Your task to perform on an android device: Go to Amazon Image 0: 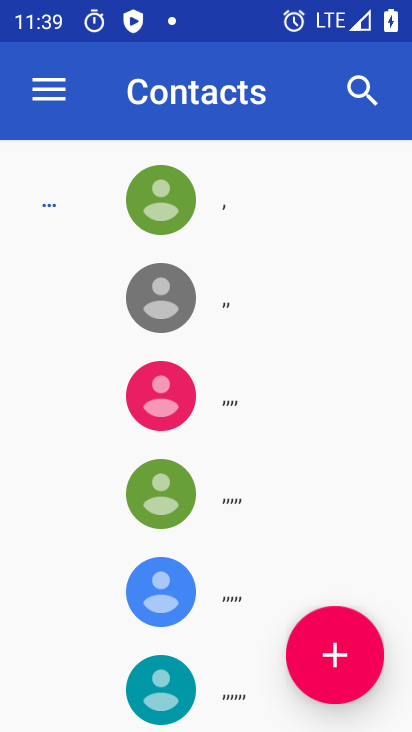
Step 0: press home button
Your task to perform on an android device: Go to Amazon Image 1: 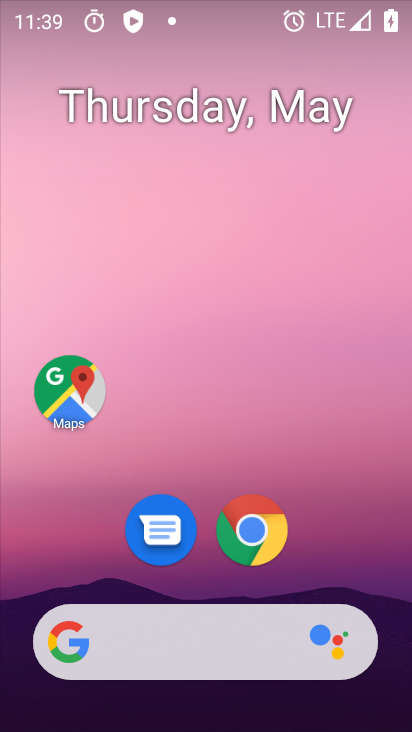
Step 1: click (239, 529)
Your task to perform on an android device: Go to Amazon Image 2: 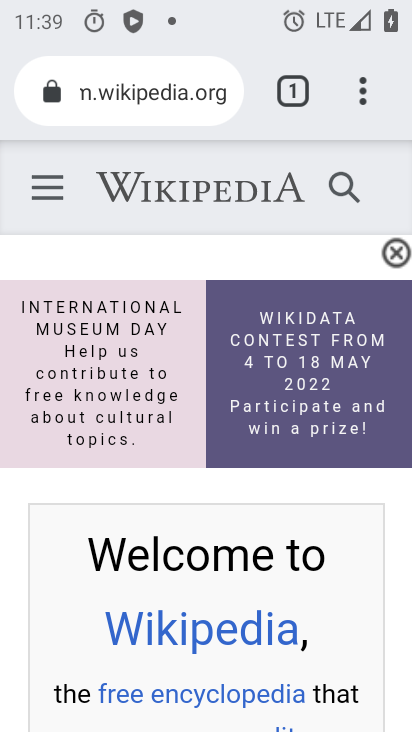
Step 2: click (196, 106)
Your task to perform on an android device: Go to Amazon Image 3: 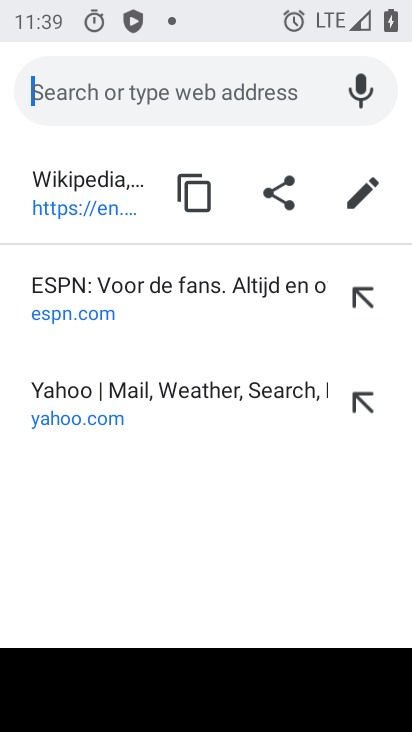
Step 3: type "amazon"
Your task to perform on an android device: Go to Amazon Image 4: 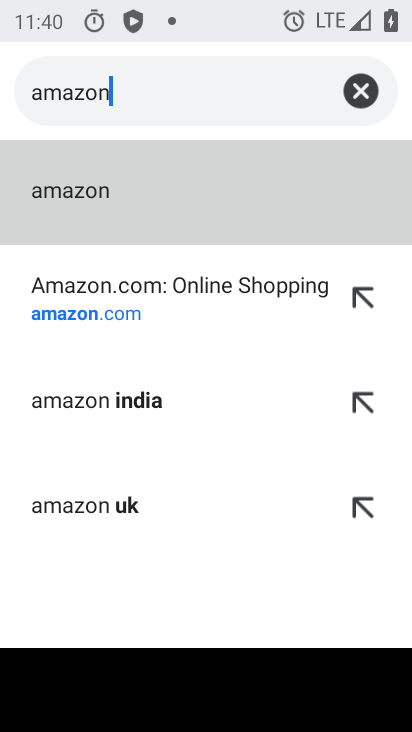
Step 4: click (263, 188)
Your task to perform on an android device: Go to Amazon Image 5: 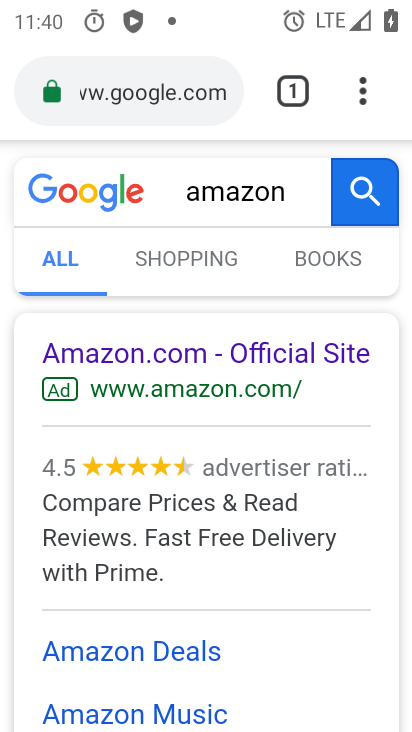
Step 5: click (132, 357)
Your task to perform on an android device: Go to Amazon Image 6: 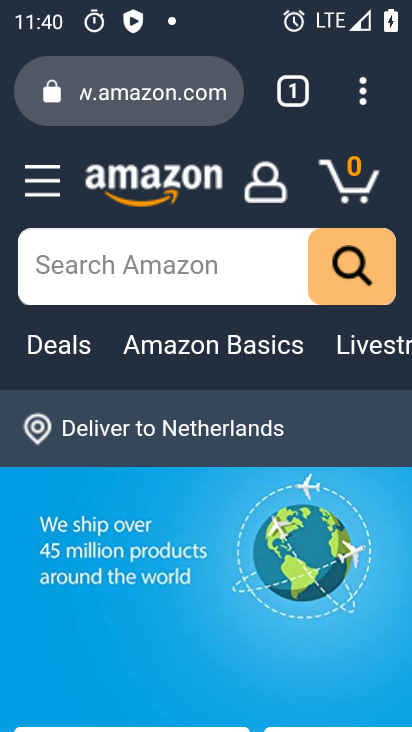
Step 6: task complete